Your task to perform on an android device: check android version Image 0: 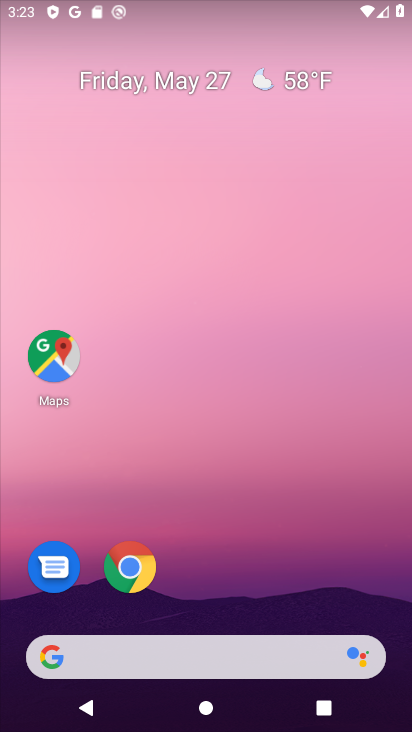
Step 0: press home button
Your task to perform on an android device: check android version Image 1: 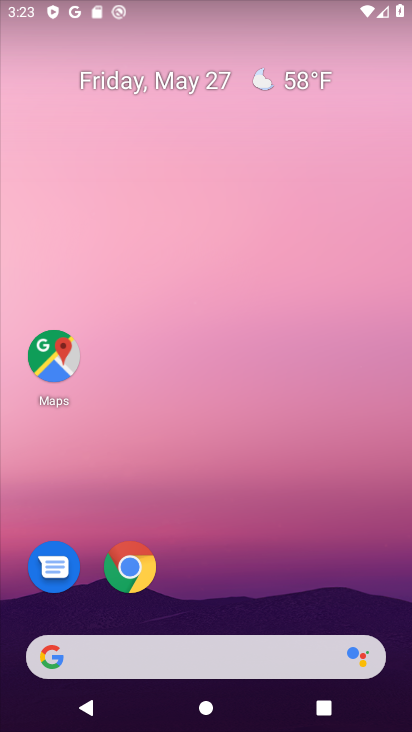
Step 1: drag from (208, 616) to (217, 59)
Your task to perform on an android device: check android version Image 2: 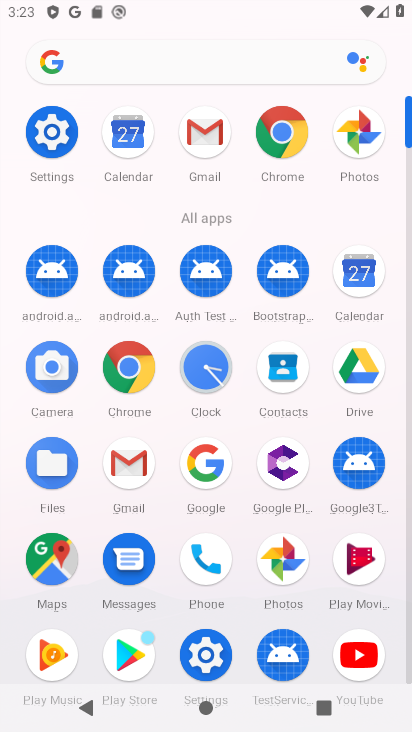
Step 2: click (51, 125)
Your task to perform on an android device: check android version Image 3: 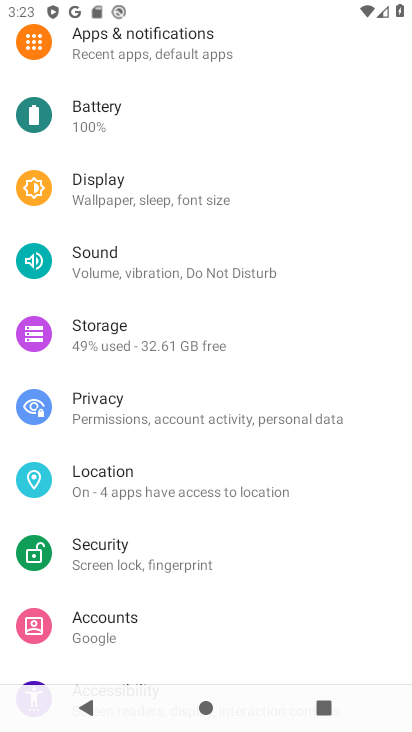
Step 3: drag from (163, 645) to (189, 95)
Your task to perform on an android device: check android version Image 4: 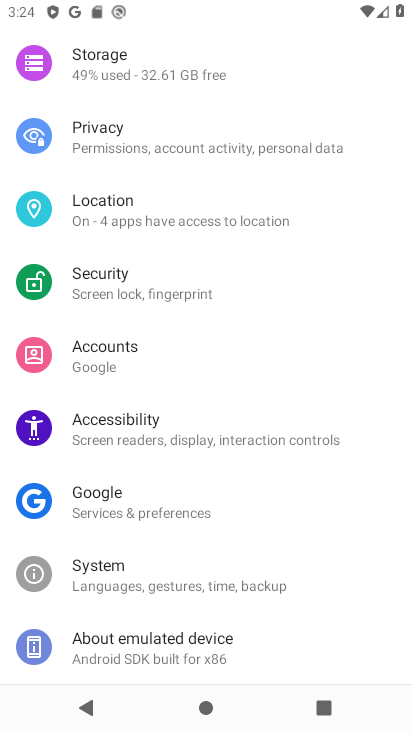
Step 4: drag from (171, 653) to (208, 118)
Your task to perform on an android device: check android version Image 5: 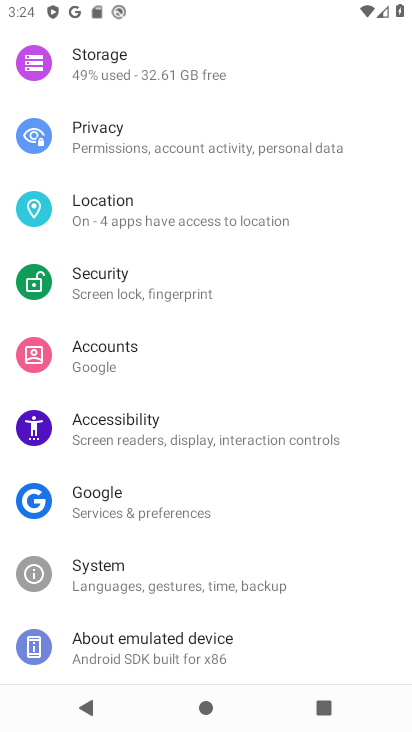
Step 5: click (235, 648)
Your task to perform on an android device: check android version Image 6: 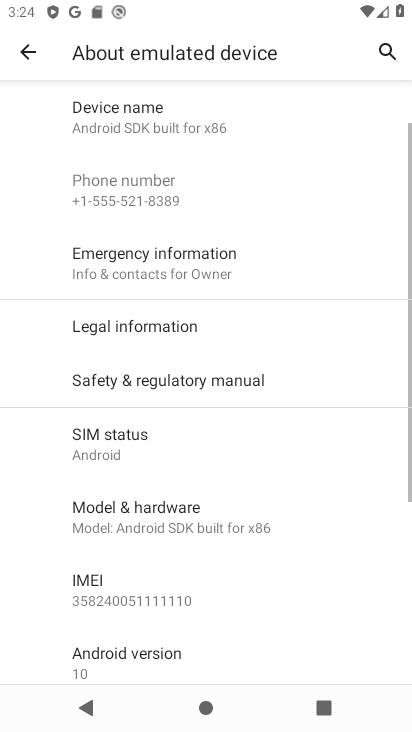
Step 6: click (177, 663)
Your task to perform on an android device: check android version Image 7: 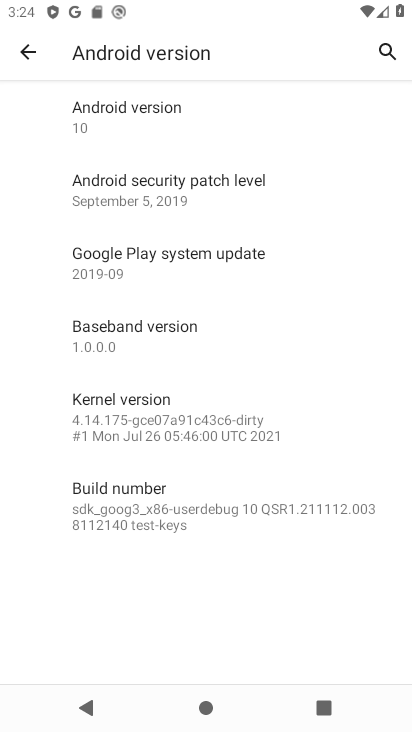
Step 7: task complete